Your task to perform on an android device: Toggle the flashlight Image 0: 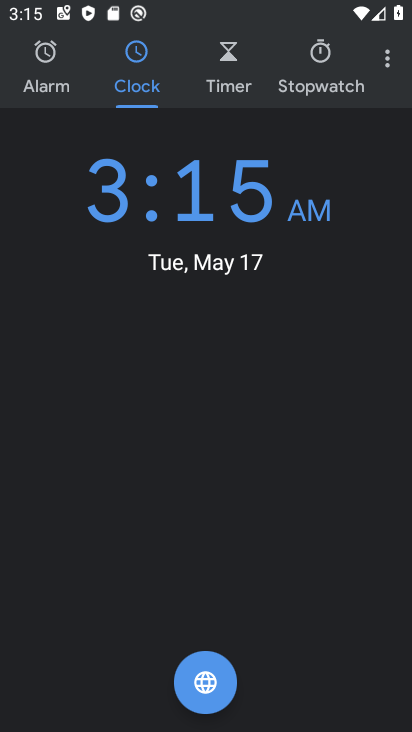
Step 0: drag from (312, 8) to (274, 547)
Your task to perform on an android device: Toggle the flashlight Image 1: 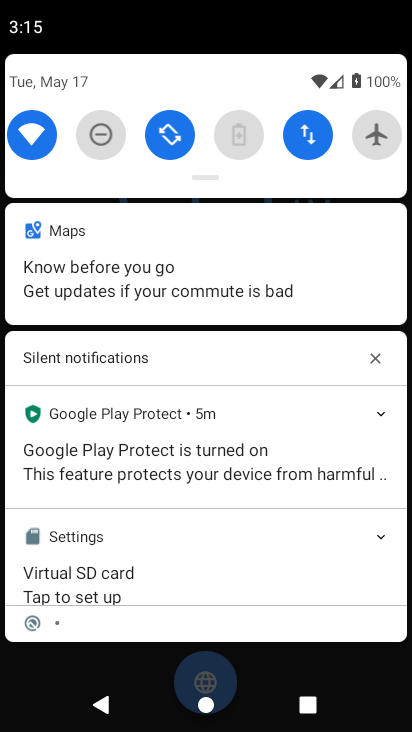
Step 1: drag from (208, 158) to (243, 511)
Your task to perform on an android device: Toggle the flashlight Image 2: 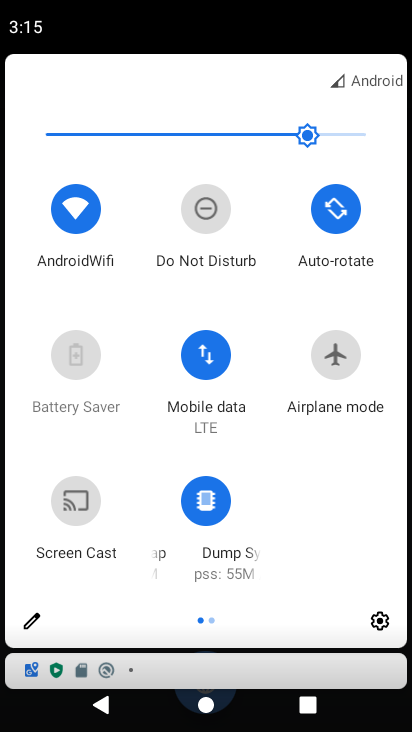
Step 2: click (34, 614)
Your task to perform on an android device: Toggle the flashlight Image 3: 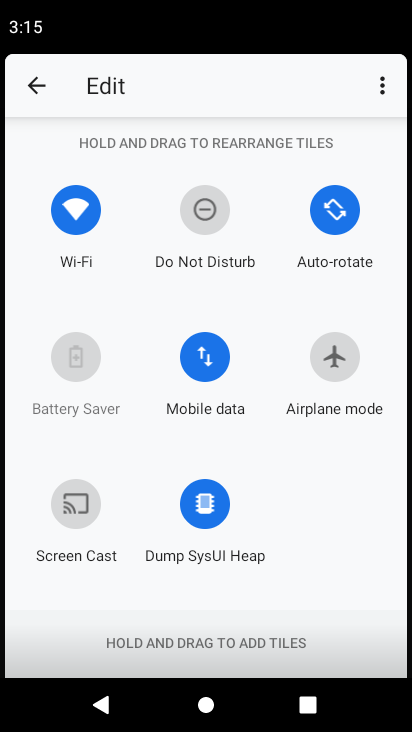
Step 3: task complete